Your task to perform on an android device: manage bookmarks in the chrome app Image 0: 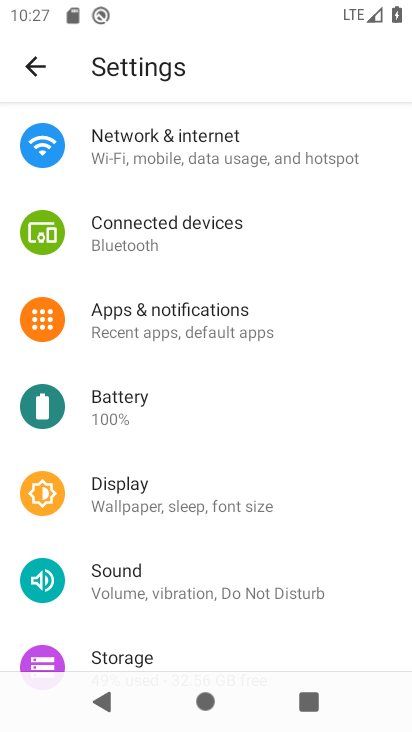
Step 0: press home button
Your task to perform on an android device: manage bookmarks in the chrome app Image 1: 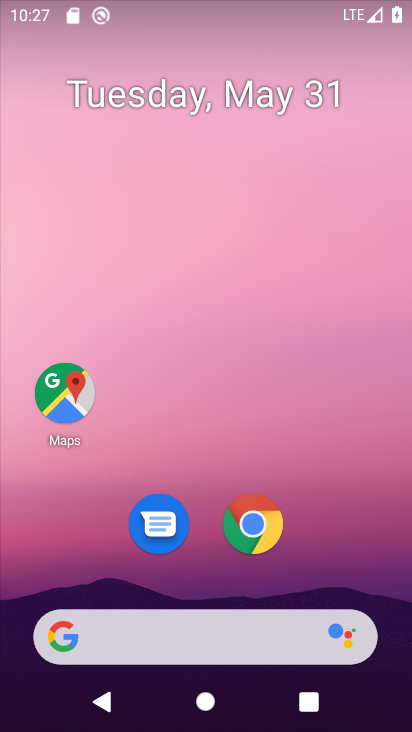
Step 1: click (265, 528)
Your task to perform on an android device: manage bookmarks in the chrome app Image 2: 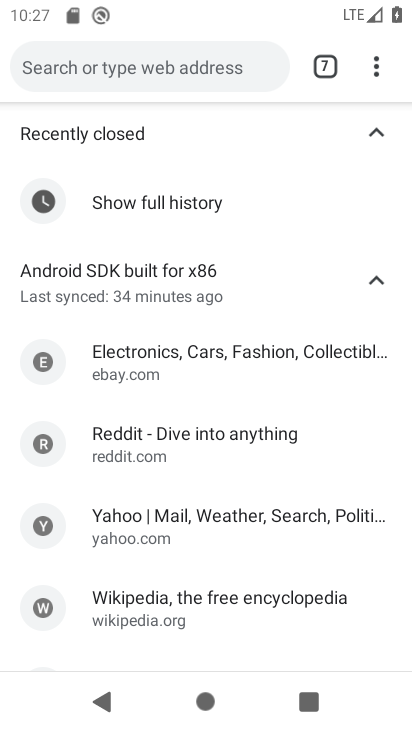
Step 2: click (377, 71)
Your task to perform on an android device: manage bookmarks in the chrome app Image 3: 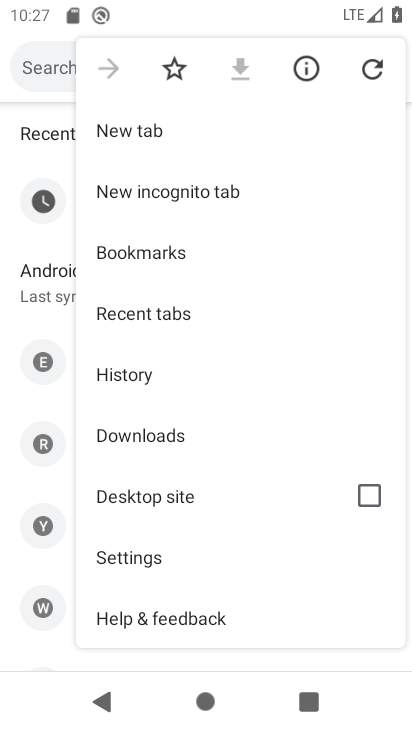
Step 3: click (227, 243)
Your task to perform on an android device: manage bookmarks in the chrome app Image 4: 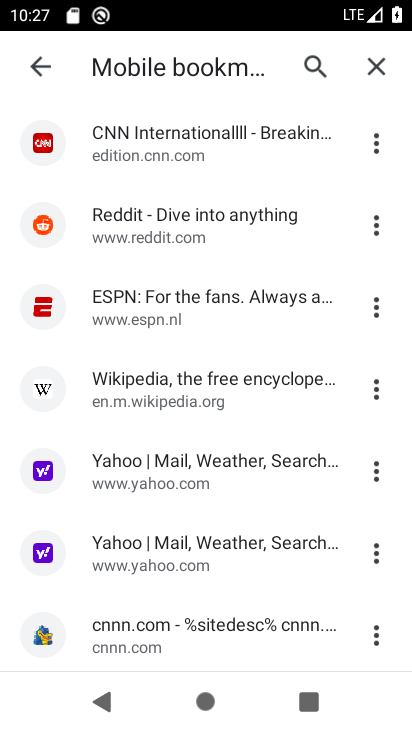
Step 4: click (366, 223)
Your task to perform on an android device: manage bookmarks in the chrome app Image 5: 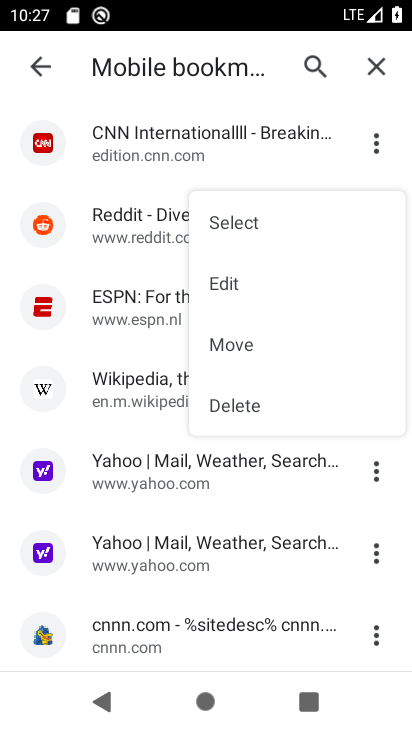
Step 5: click (296, 281)
Your task to perform on an android device: manage bookmarks in the chrome app Image 6: 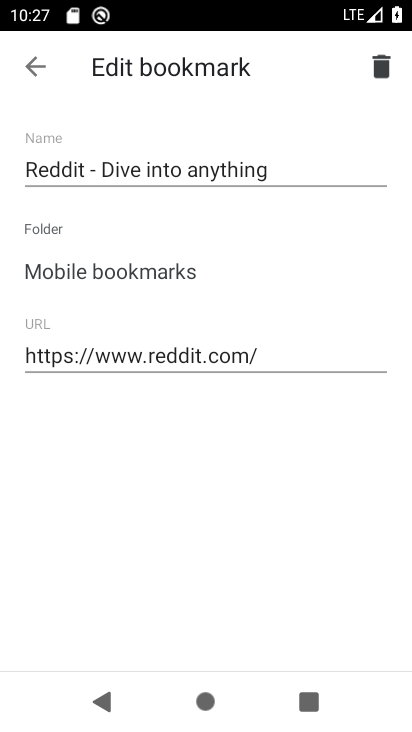
Step 6: click (39, 57)
Your task to perform on an android device: manage bookmarks in the chrome app Image 7: 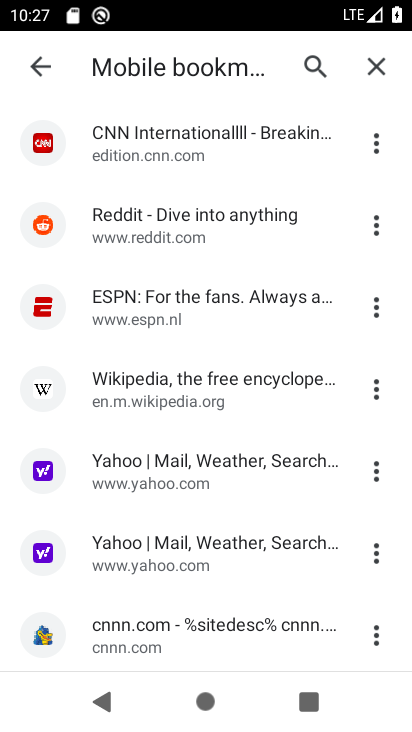
Step 7: task complete